Your task to perform on an android device: move a message to another label in the gmail app Image 0: 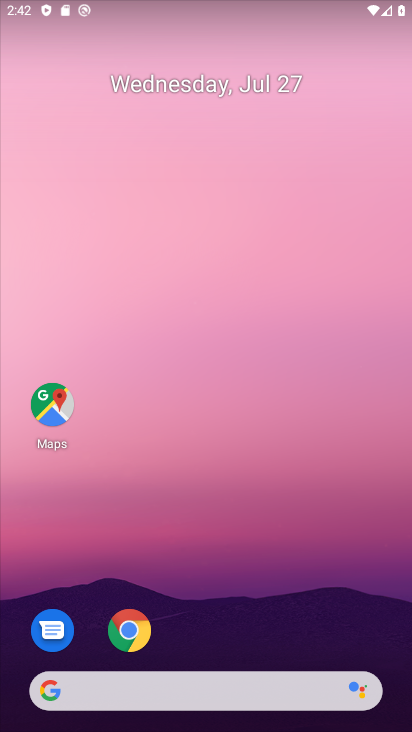
Step 0: drag from (257, 462) to (216, 233)
Your task to perform on an android device: move a message to another label in the gmail app Image 1: 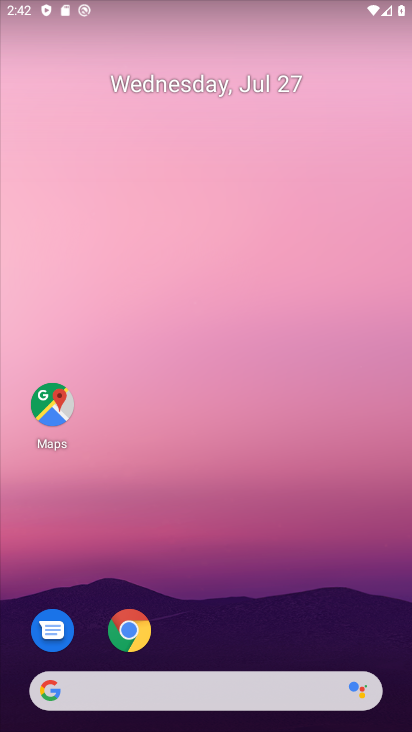
Step 1: drag from (211, 283) to (207, 122)
Your task to perform on an android device: move a message to another label in the gmail app Image 2: 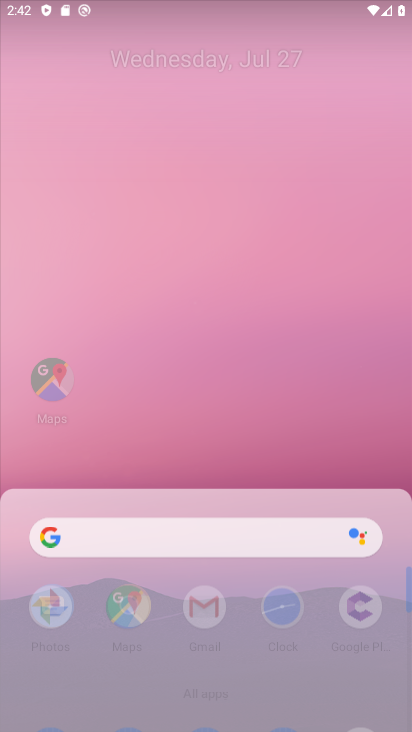
Step 2: drag from (201, 421) to (172, 215)
Your task to perform on an android device: move a message to another label in the gmail app Image 3: 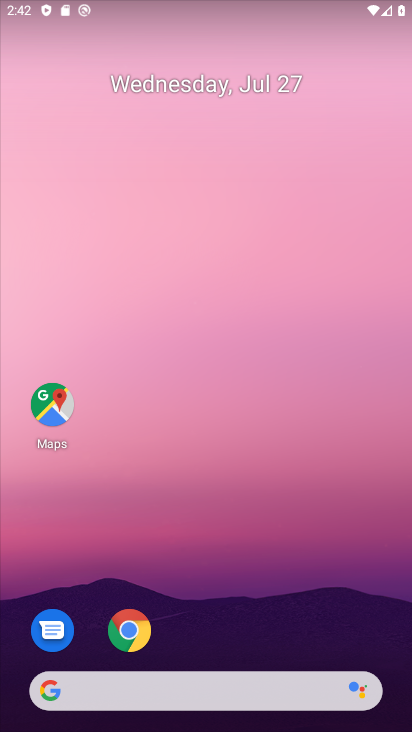
Step 3: drag from (165, 658) to (165, 153)
Your task to perform on an android device: move a message to another label in the gmail app Image 4: 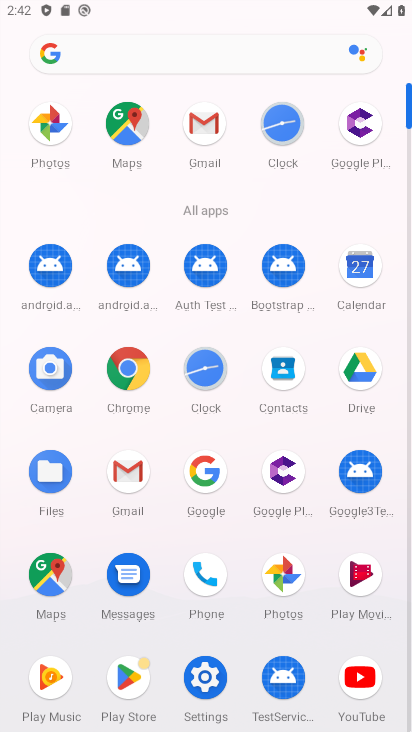
Step 4: click (137, 467)
Your task to perform on an android device: move a message to another label in the gmail app Image 5: 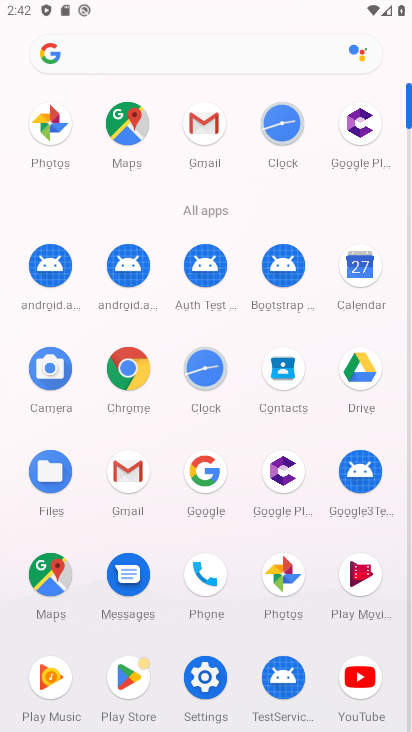
Step 5: click (141, 467)
Your task to perform on an android device: move a message to another label in the gmail app Image 6: 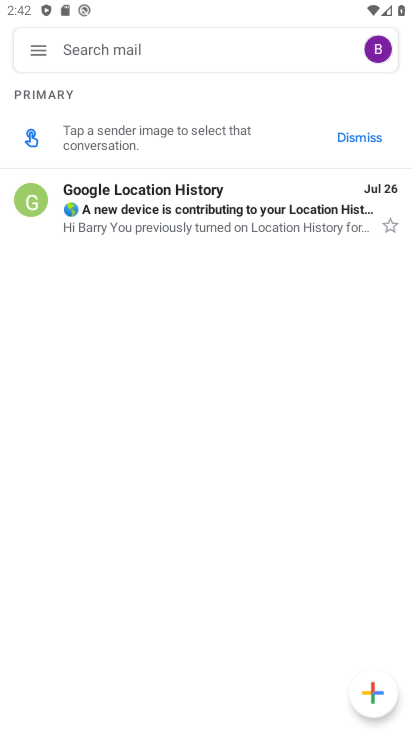
Step 6: click (139, 469)
Your task to perform on an android device: move a message to another label in the gmail app Image 7: 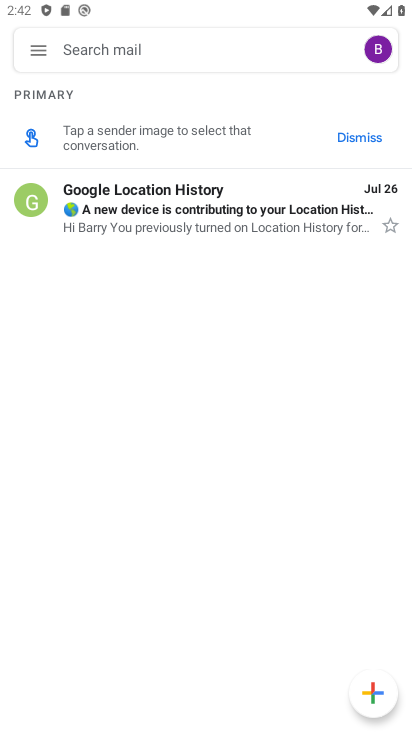
Step 7: click (400, 216)
Your task to perform on an android device: move a message to another label in the gmail app Image 8: 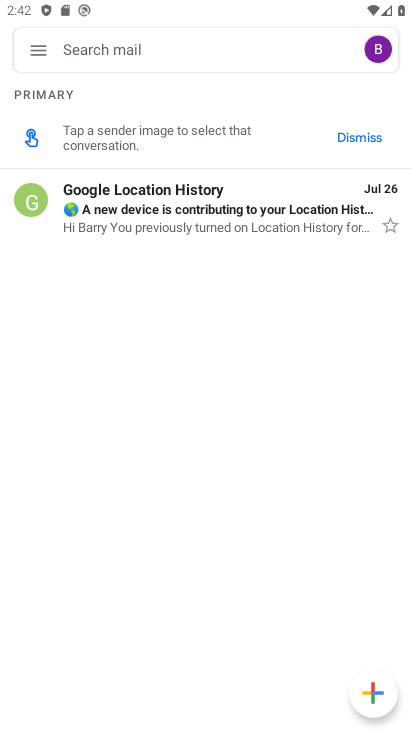
Step 8: click (387, 223)
Your task to perform on an android device: move a message to another label in the gmail app Image 9: 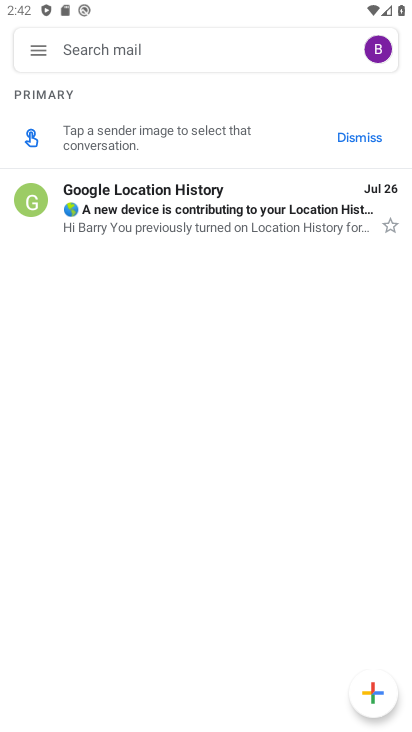
Step 9: click (392, 226)
Your task to perform on an android device: move a message to another label in the gmail app Image 10: 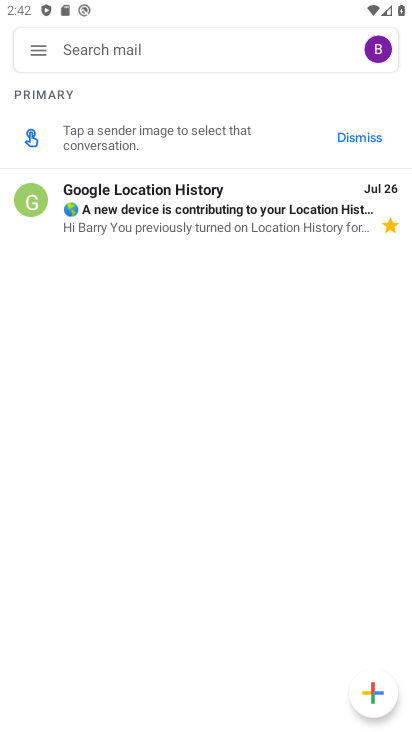
Step 10: task complete